Your task to perform on an android device: Go to battery settings Image 0: 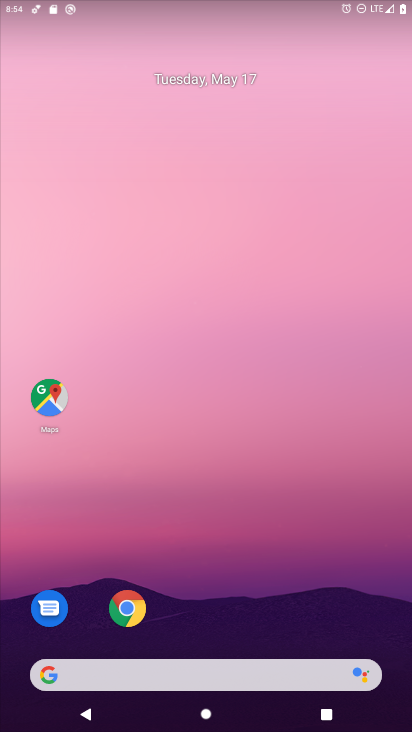
Step 0: drag from (236, 632) to (348, 9)
Your task to perform on an android device: Go to battery settings Image 1: 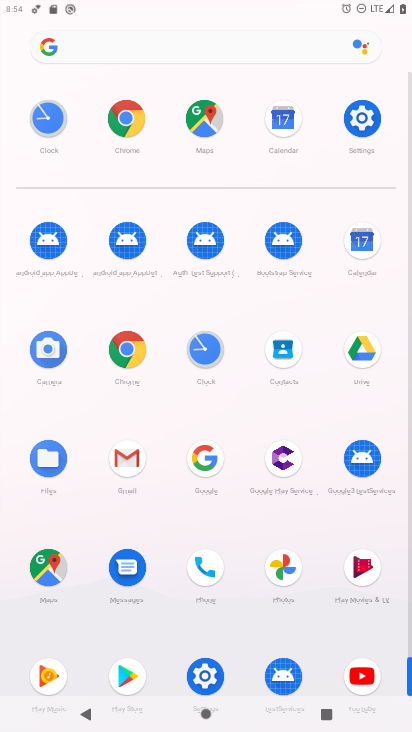
Step 1: click (202, 663)
Your task to perform on an android device: Go to battery settings Image 2: 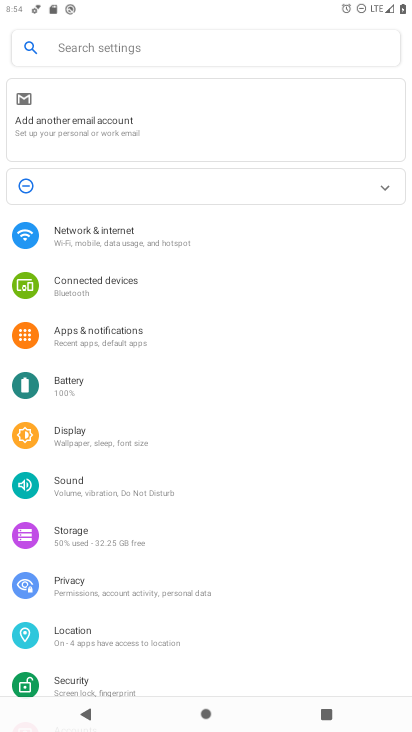
Step 2: click (80, 384)
Your task to perform on an android device: Go to battery settings Image 3: 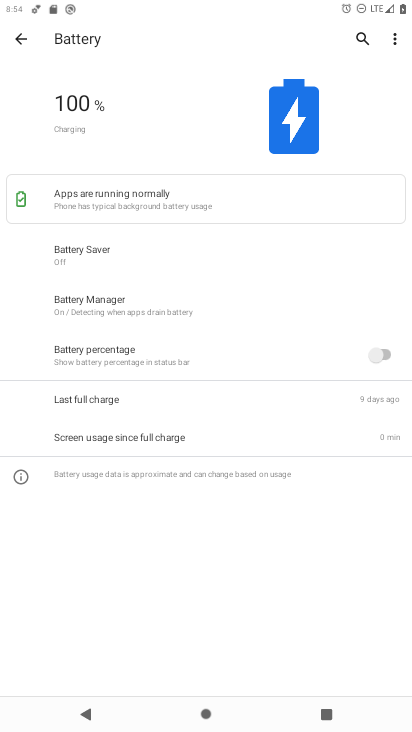
Step 3: task complete